Your task to perform on an android device: Go to network settings Image 0: 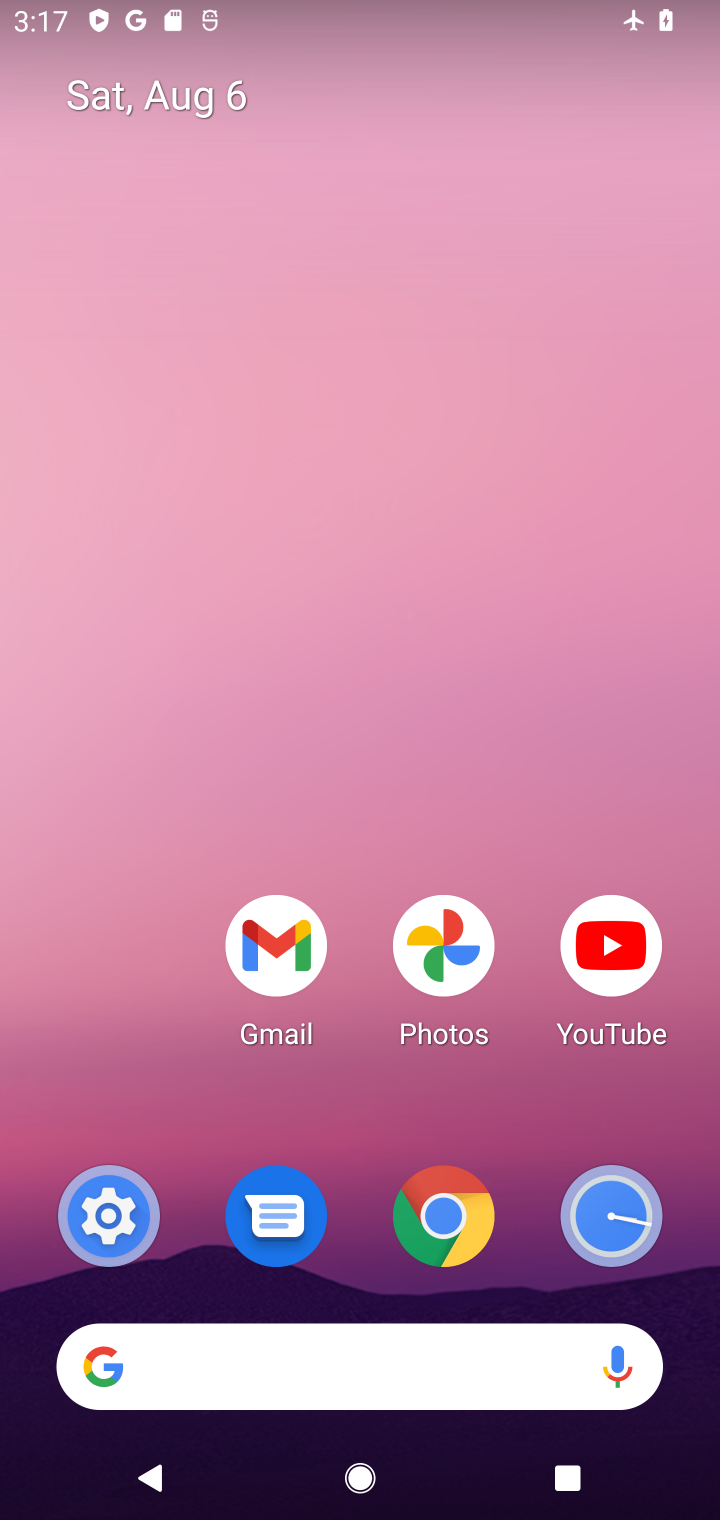
Step 0: click (144, 1218)
Your task to perform on an android device: Go to network settings Image 1: 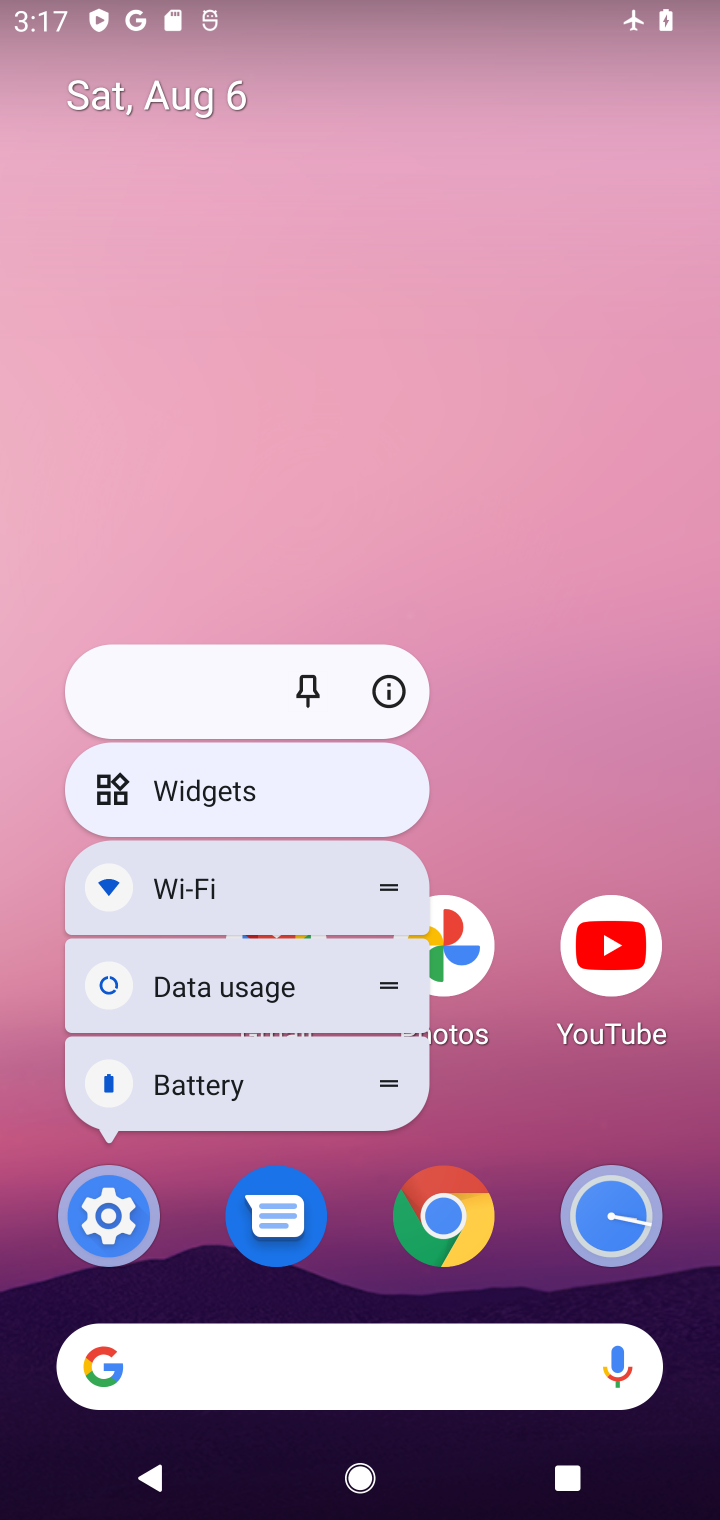
Step 1: click (102, 1219)
Your task to perform on an android device: Go to network settings Image 2: 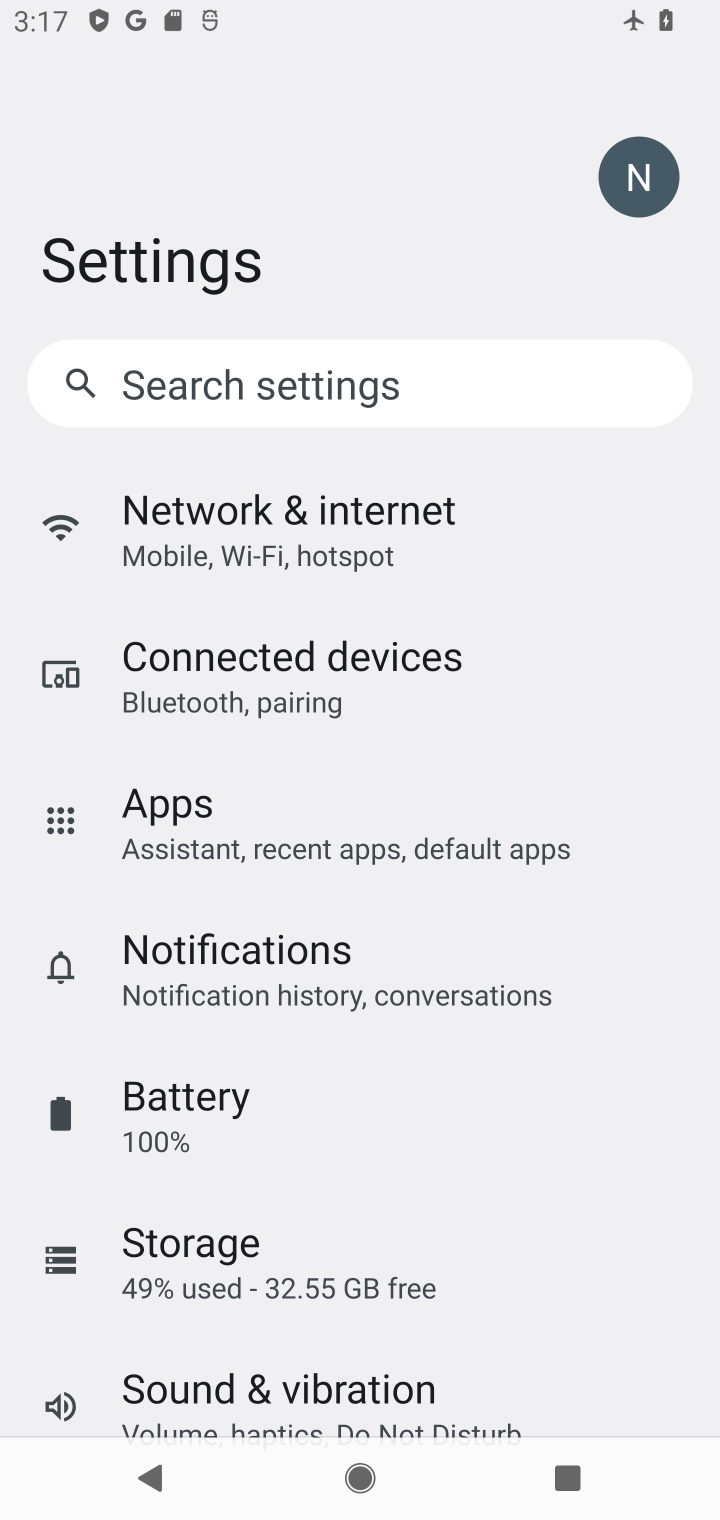
Step 2: click (400, 576)
Your task to perform on an android device: Go to network settings Image 3: 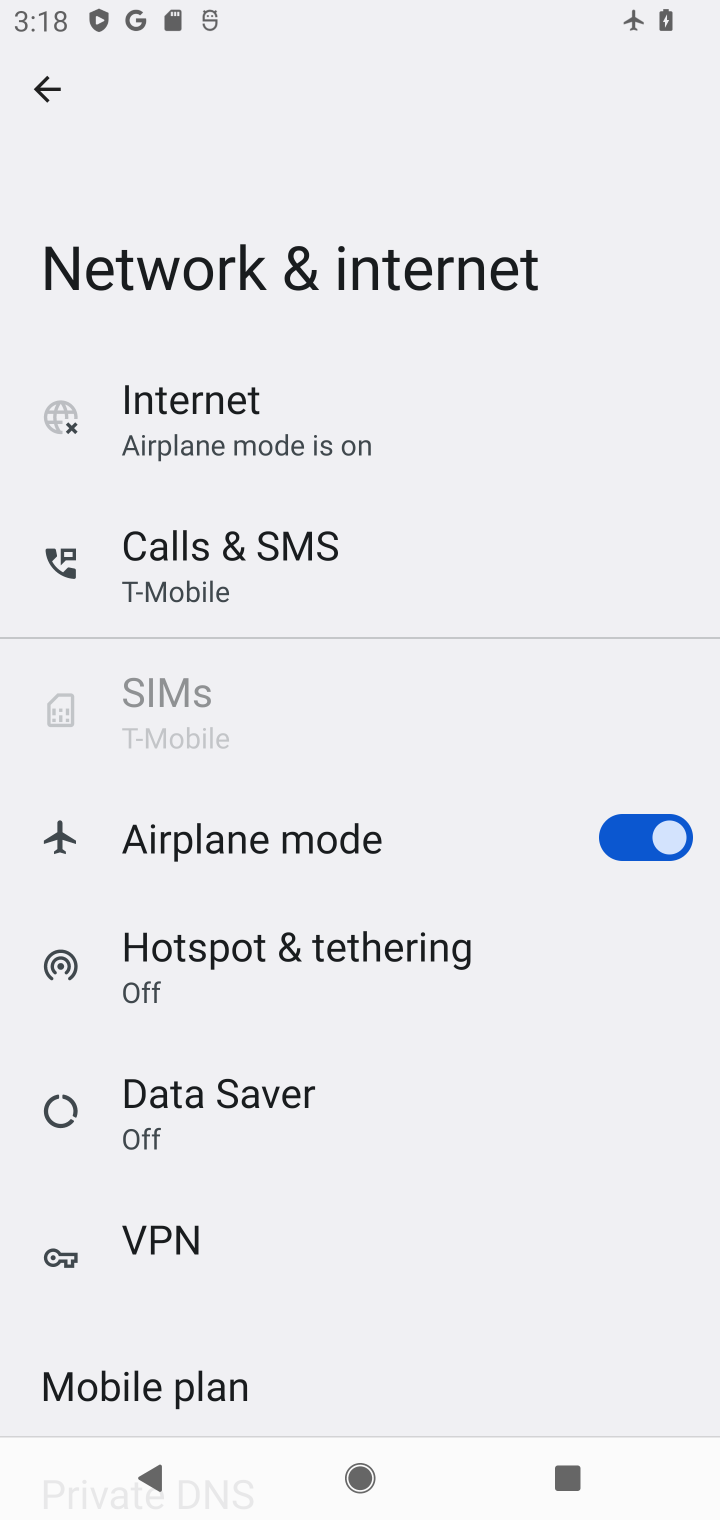
Step 3: task complete